Your task to perform on an android device: Show me productivity apps on the Play Store Image 0: 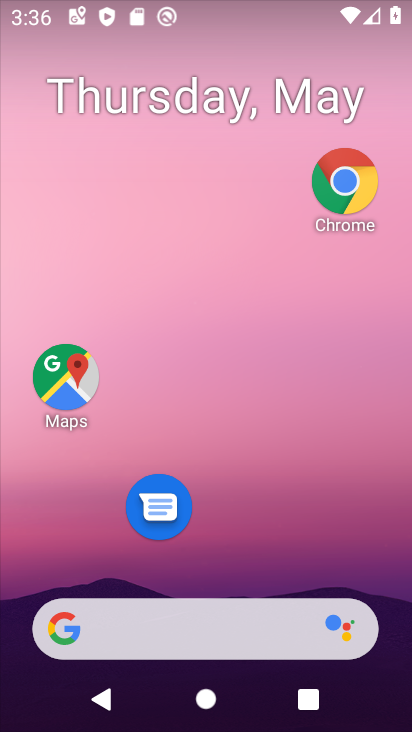
Step 0: drag from (263, 526) to (298, 139)
Your task to perform on an android device: Show me productivity apps on the Play Store Image 1: 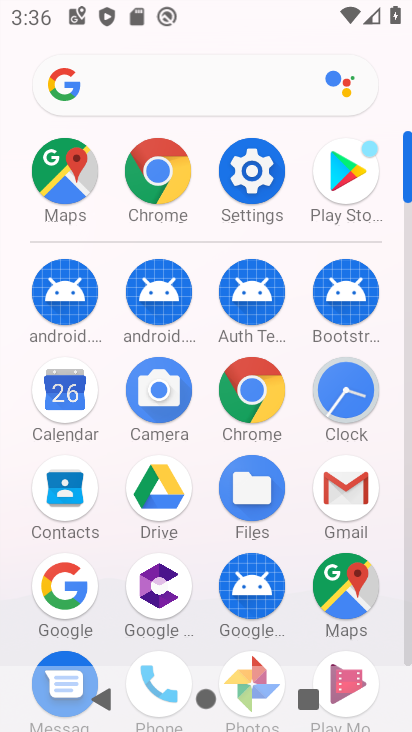
Step 1: click (352, 166)
Your task to perform on an android device: Show me productivity apps on the Play Store Image 2: 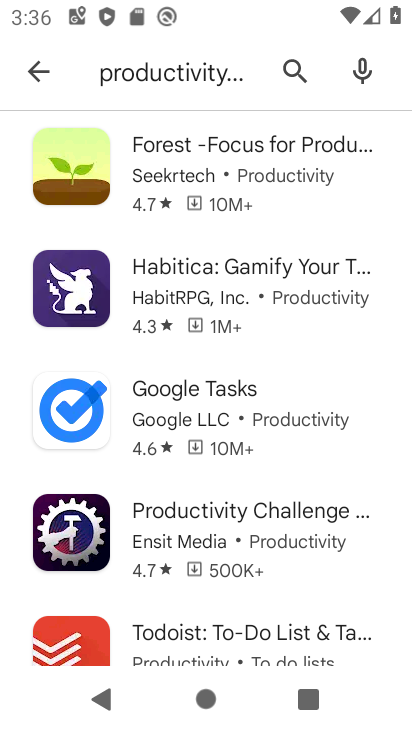
Step 2: task complete